Your task to perform on an android device: turn off translation in the chrome app Image 0: 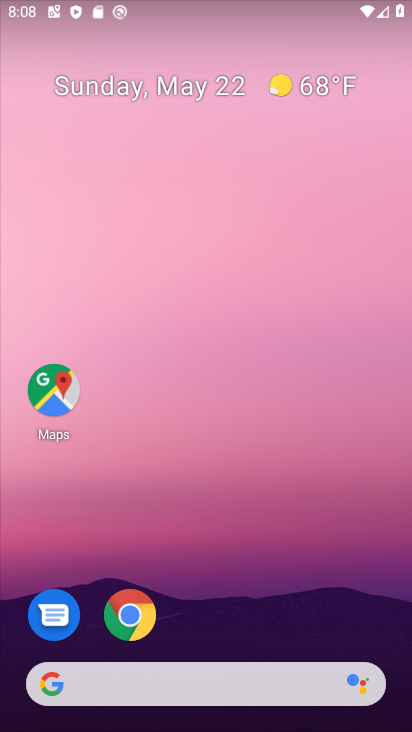
Step 0: drag from (220, 647) to (184, 7)
Your task to perform on an android device: turn off translation in the chrome app Image 1: 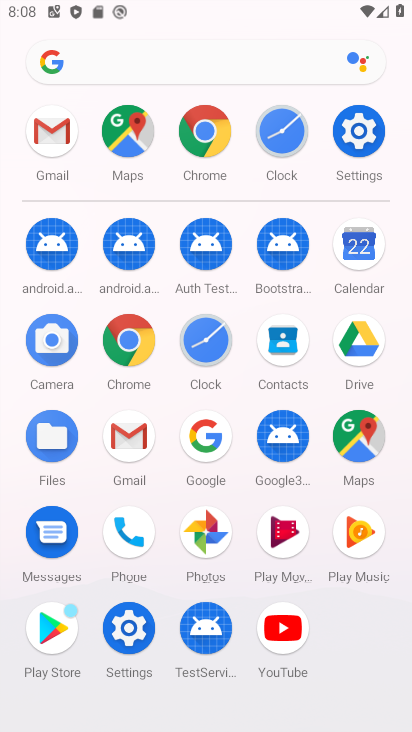
Step 1: click (130, 360)
Your task to perform on an android device: turn off translation in the chrome app Image 2: 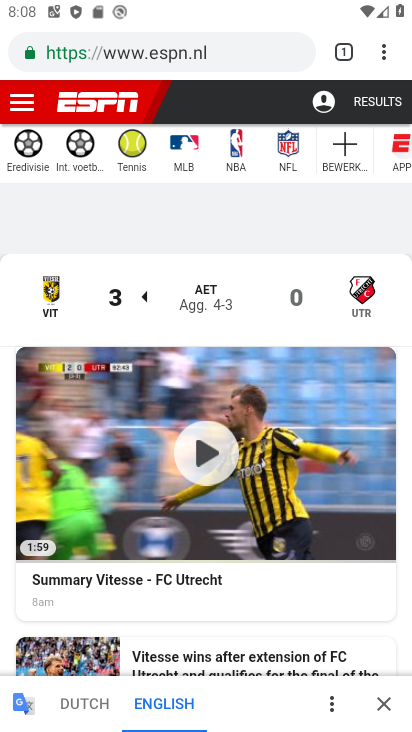
Step 2: click (385, 54)
Your task to perform on an android device: turn off translation in the chrome app Image 3: 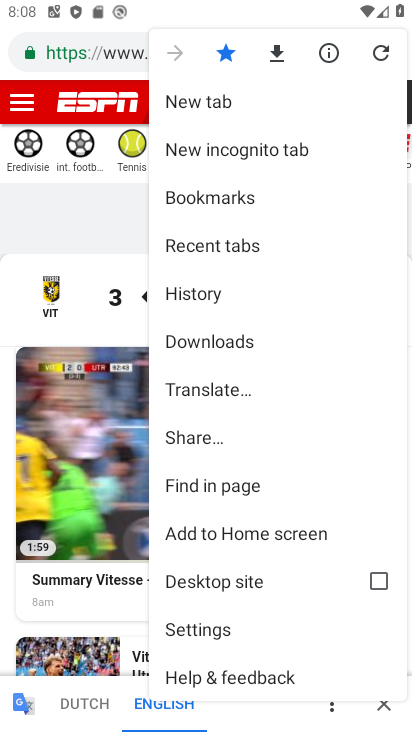
Step 3: click (190, 621)
Your task to perform on an android device: turn off translation in the chrome app Image 4: 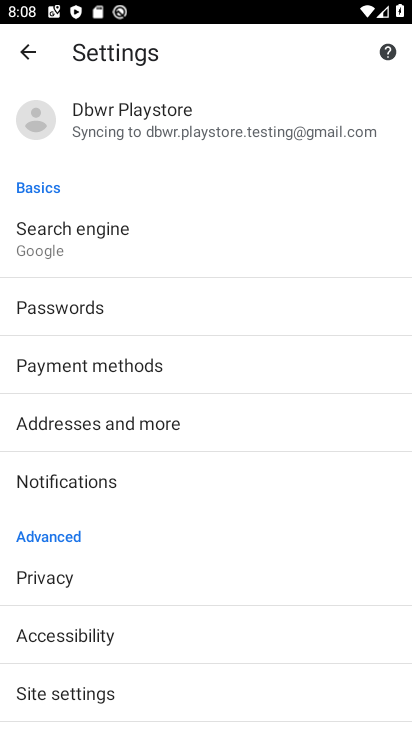
Step 4: drag from (195, 616) to (177, 184)
Your task to perform on an android device: turn off translation in the chrome app Image 5: 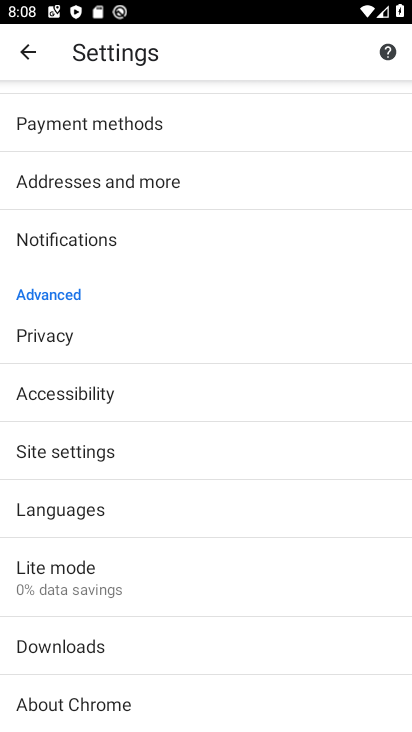
Step 5: click (87, 515)
Your task to perform on an android device: turn off translation in the chrome app Image 6: 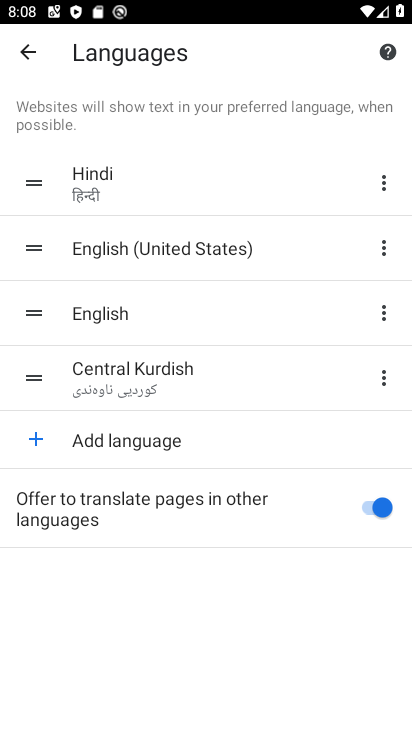
Step 6: click (359, 507)
Your task to perform on an android device: turn off translation in the chrome app Image 7: 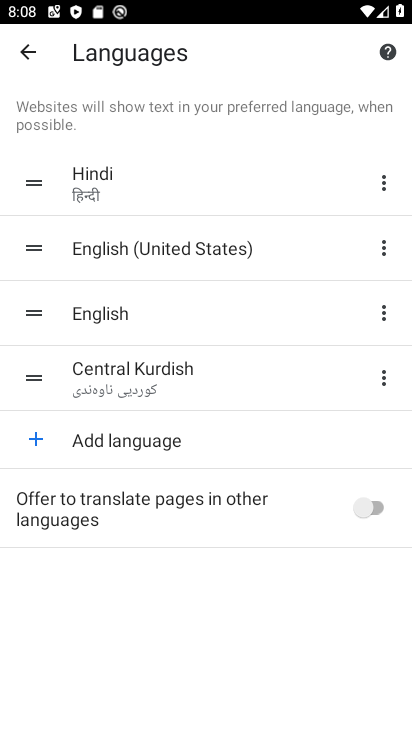
Step 7: task complete